Your task to perform on an android device: What's the weather like in Mumbai? Image 0: 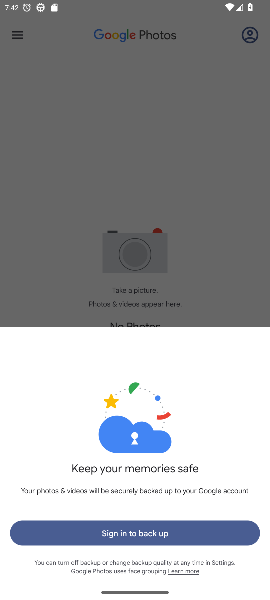
Step 0: press home button
Your task to perform on an android device: What's the weather like in Mumbai? Image 1: 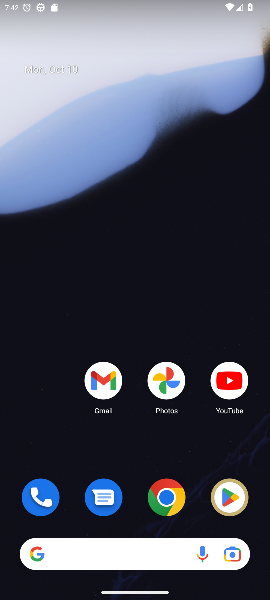
Step 1: drag from (126, 471) to (130, 175)
Your task to perform on an android device: What's the weather like in Mumbai? Image 2: 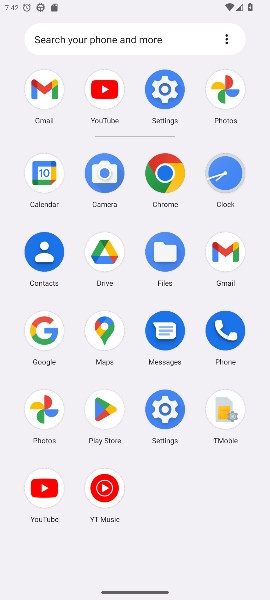
Step 2: click (50, 322)
Your task to perform on an android device: What's the weather like in Mumbai? Image 3: 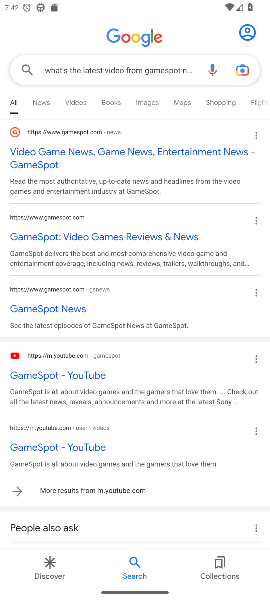
Step 3: click (80, 69)
Your task to perform on an android device: What's the weather like in Mumbai? Image 4: 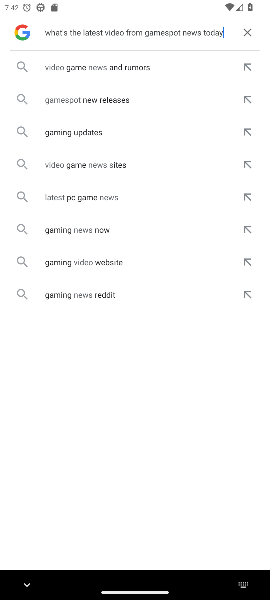
Step 4: click (248, 28)
Your task to perform on an android device: What's the weather like in Mumbai? Image 5: 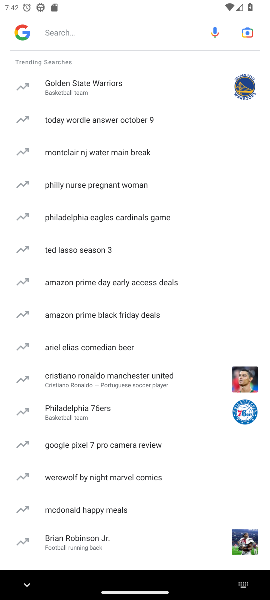
Step 5: click (90, 23)
Your task to perform on an android device: What's the weather like in Mumbai? Image 6: 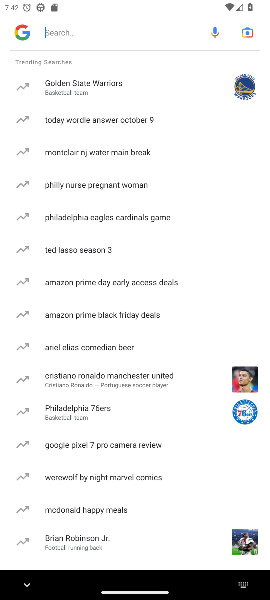
Step 6: type "What's the weather like in Mumbai "
Your task to perform on an android device: What's the weather like in Mumbai? Image 7: 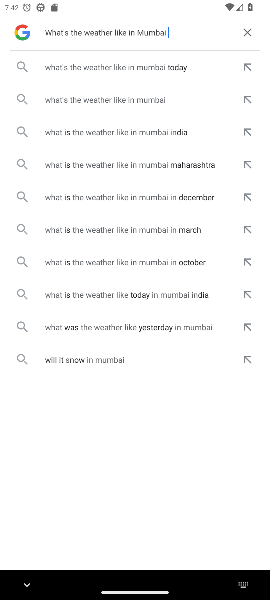
Step 7: click (83, 64)
Your task to perform on an android device: What's the weather like in Mumbai? Image 8: 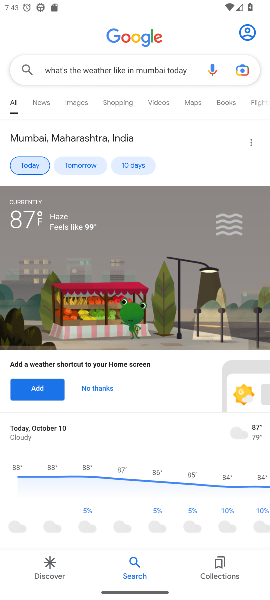
Step 8: task complete